Your task to perform on an android device: Do I have any events today? Image 0: 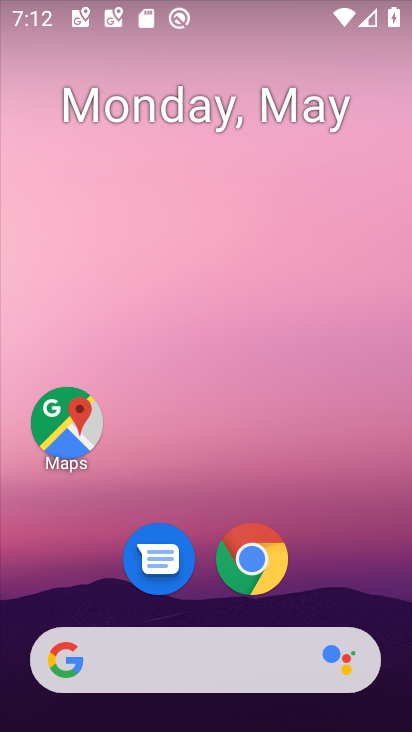
Step 0: drag from (386, 649) to (395, 2)
Your task to perform on an android device: Do I have any events today? Image 1: 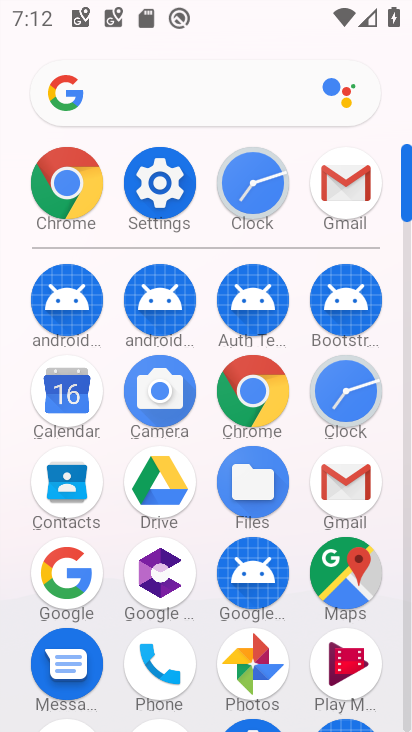
Step 1: click (58, 413)
Your task to perform on an android device: Do I have any events today? Image 2: 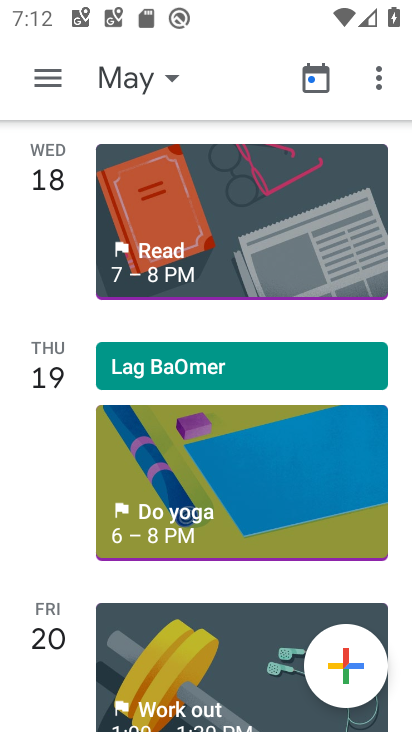
Step 2: click (120, 84)
Your task to perform on an android device: Do I have any events today? Image 3: 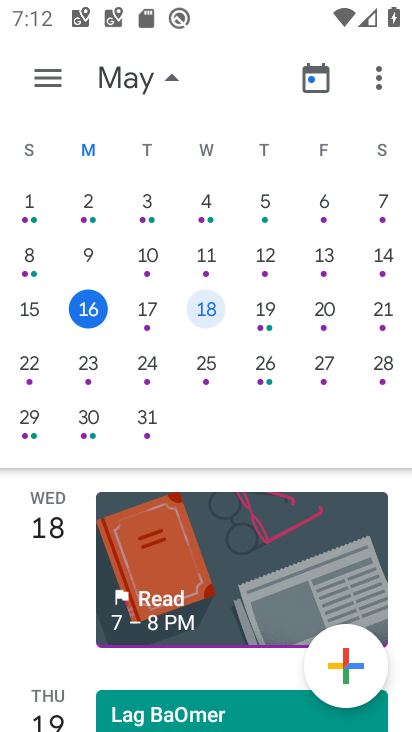
Step 3: click (140, 311)
Your task to perform on an android device: Do I have any events today? Image 4: 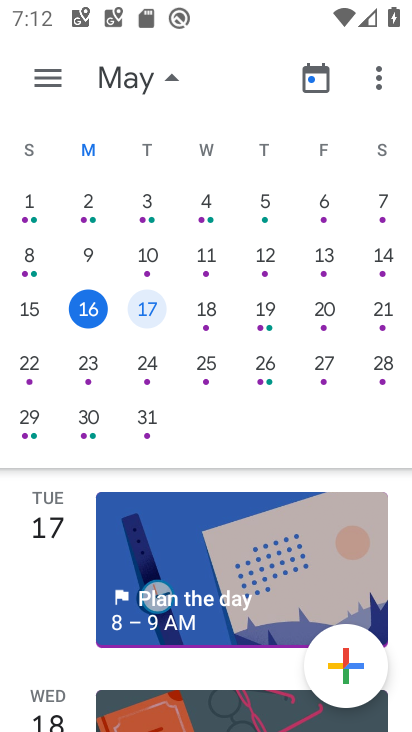
Step 4: click (137, 506)
Your task to perform on an android device: Do I have any events today? Image 5: 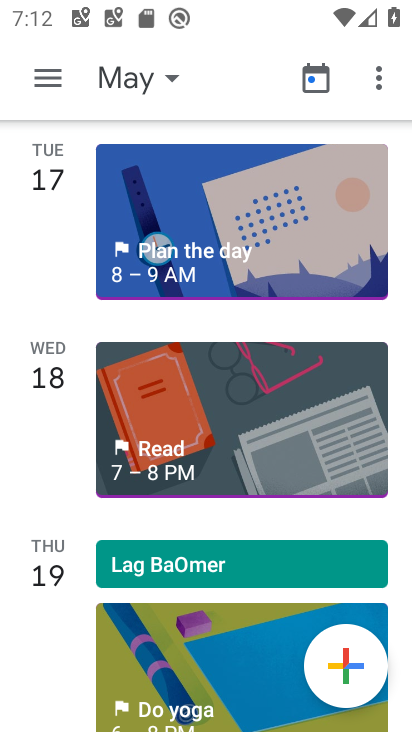
Step 5: task complete